Your task to perform on an android device: Add "macbook pro 13 inch" to the cart on amazon Image 0: 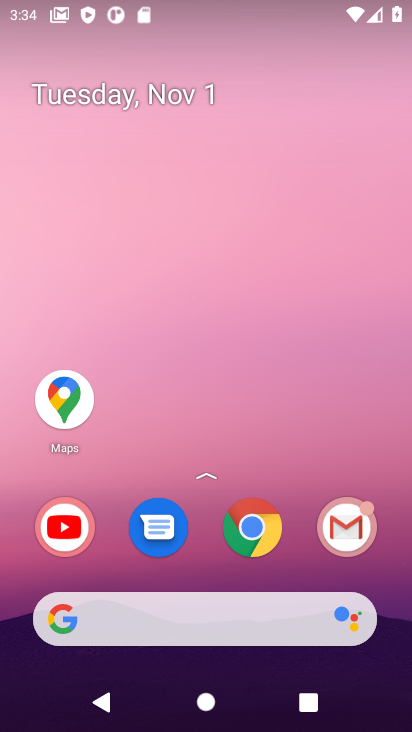
Step 0: click (225, 622)
Your task to perform on an android device: Add "macbook pro 13 inch" to the cart on amazon Image 1: 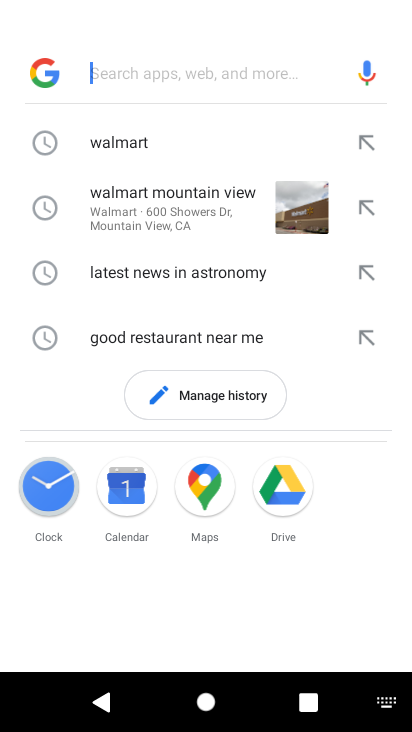
Step 1: type "amazon"
Your task to perform on an android device: Add "macbook pro 13 inch" to the cart on amazon Image 2: 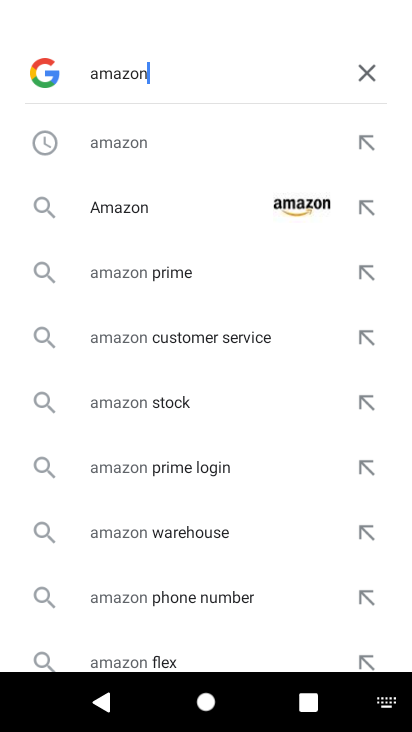
Step 2: click (143, 210)
Your task to perform on an android device: Add "macbook pro 13 inch" to the cart on amazon Image 3: 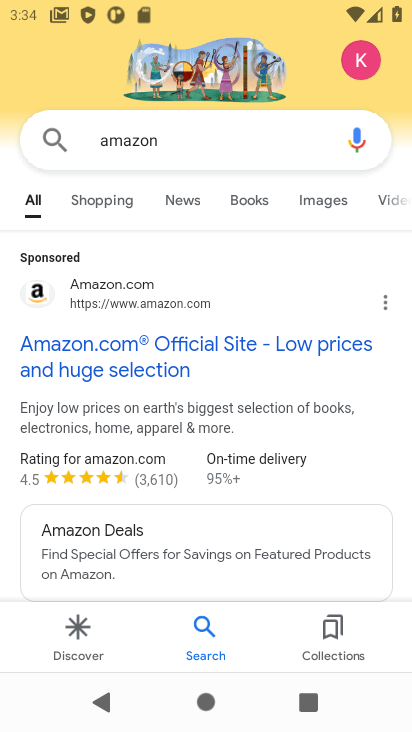
Step 3: click (90, 307)
Your task to perform on an android device: Add "macbook pro 13 inch" to the cart on amazon Image 4: 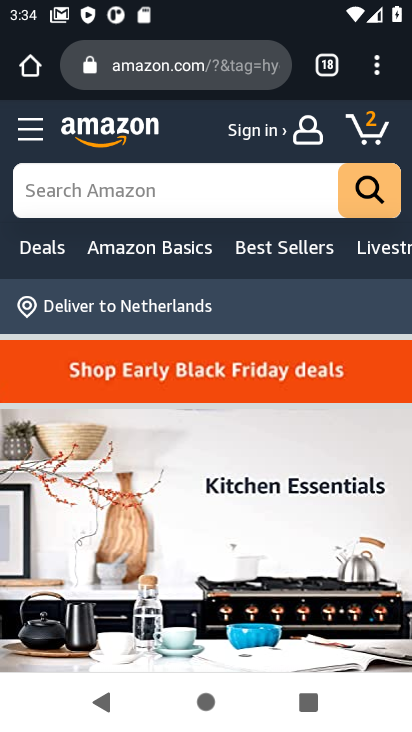
Step 4: click (151, 185)
Your task to perform on an android device: Add "macbook pro 13 inch" to the cart on amazon Image 5: 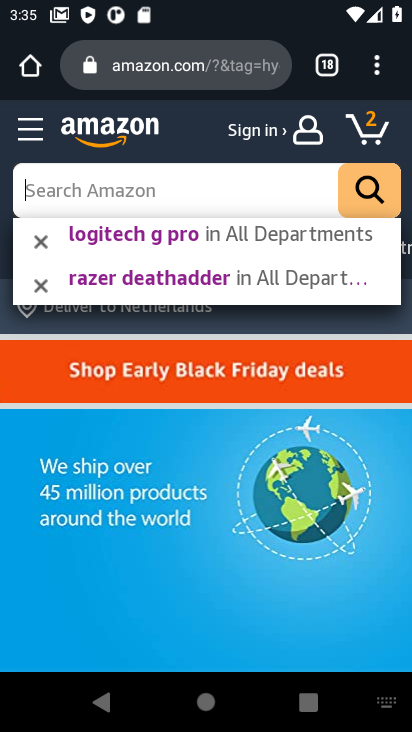
Step 5: type "macbook pro 13 inch"
Your task to perform on an android device: Add "macbook pro 13 inch" to the cart on amazon Image 6: 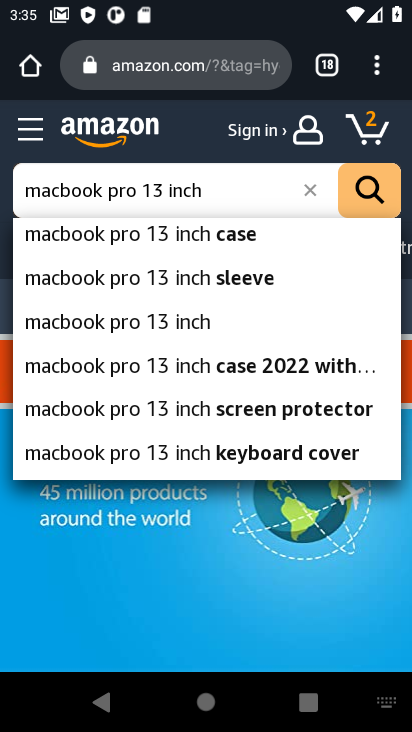
Step 6: click (122, 326)
Your task to perform on an android device: Add "macbook pro 13 inch" to the cart on amazon Image 7: 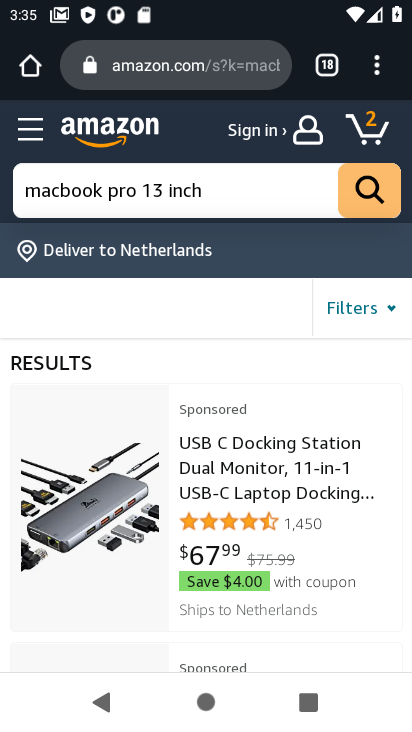
Step 7: click (192, 464)
Your task to perform on an android device: Add "macbook pro 13 inch" to the cart on amazon Image 8: 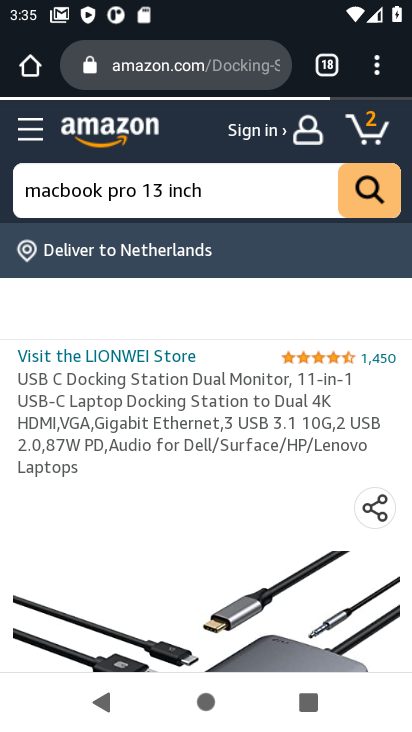
Step 8: drag from (183, 459) to (399, 162)
Your task to perform on an android device: Add "macbook pro 13 inch" to the cart on amazon Image 9: 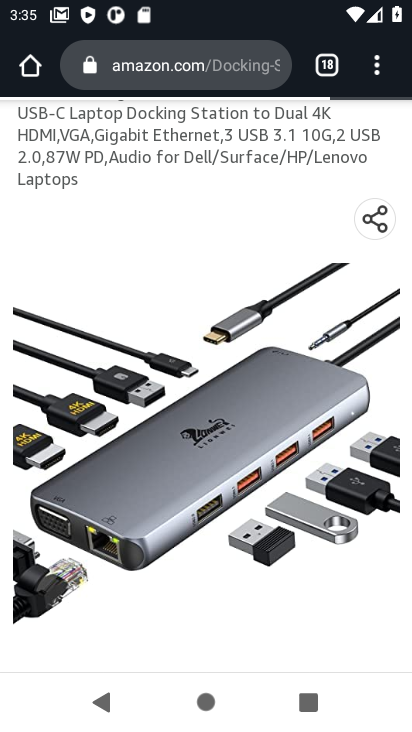
Step 9: drag from (240, 614) to (258, 463)
Your task to perform on an android device: Add "macbook pro 13 inch" to the cart on amazon Image 10: 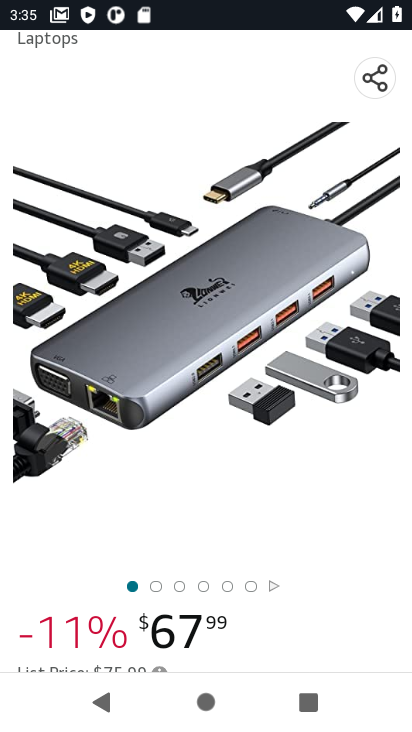
Step 10: drag from (245, 640) to (254, 375)
Your task to perform on an android device: Add "macbook pro 13 inch" to the cart on amazon Image 11: 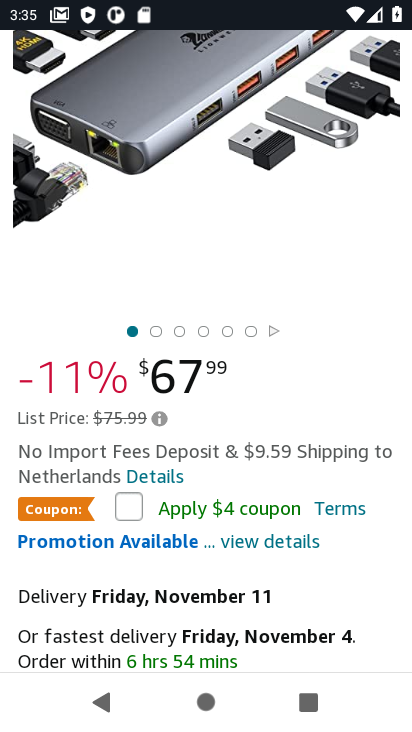
Step 11: drag from (276, 566) to (293, 351)
Your task to perform on an android device: Add "macbook pro 13 inch" to the cart on amazon Image 12: 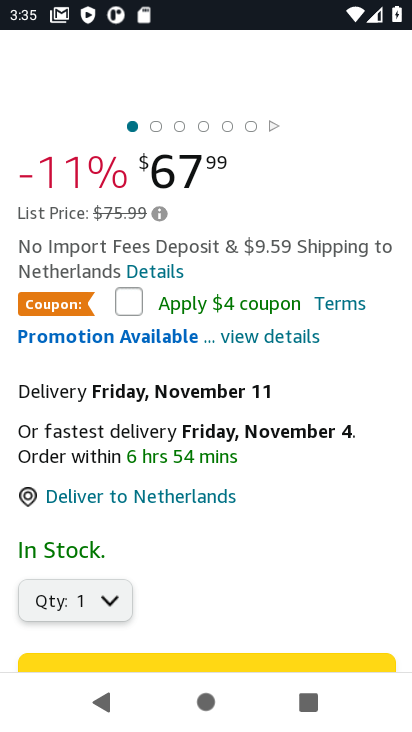
Step 12: drag from (253, 547) to (241, 357)
Your task to perform on an android device: Add "macbook pro 13 inch" to the cart on amazon Image 13: 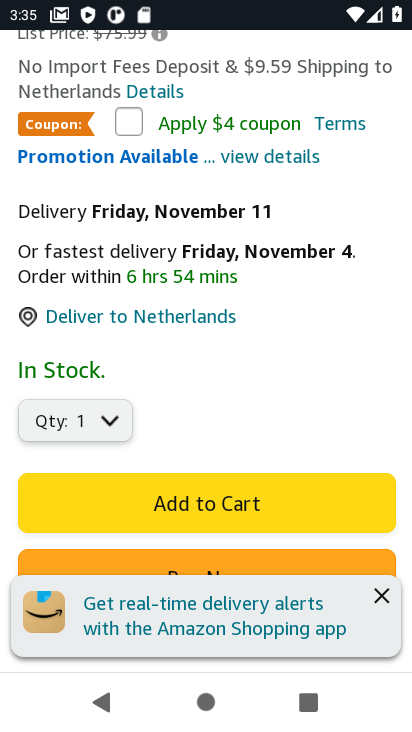
Step 13: click (207, 509)
Your task to perform on an android device: Add "macbook pro 13 inch" to the cart on amazon Image 14: 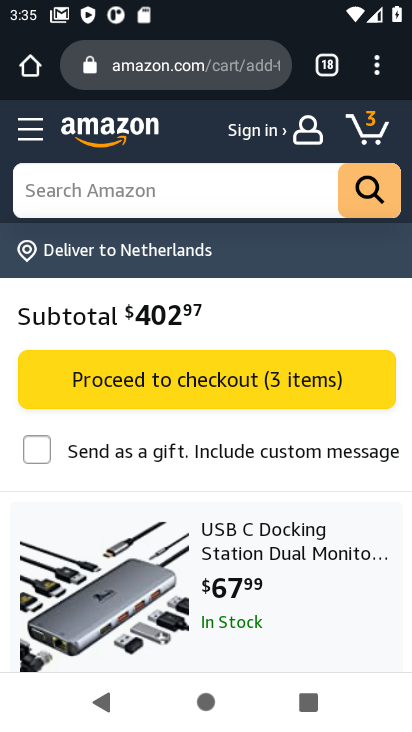
Step 14: task complete